Your task to perform on an android device: clear all cookies in the chrome app Image 0: 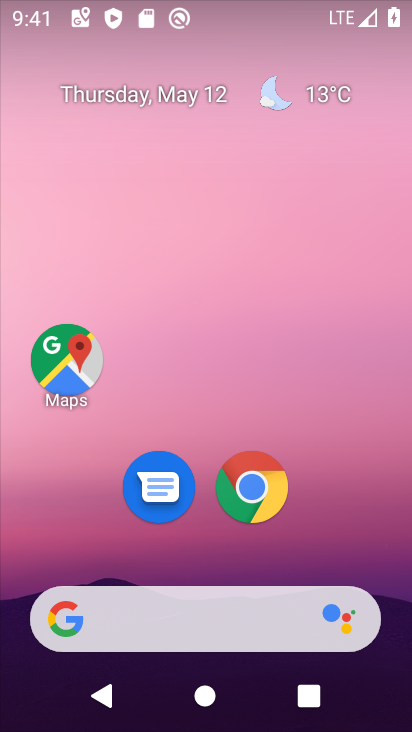
Step 0: click (263, 491)
Your task to perform on an android device: clear all cookies in the chrome app Image 1: 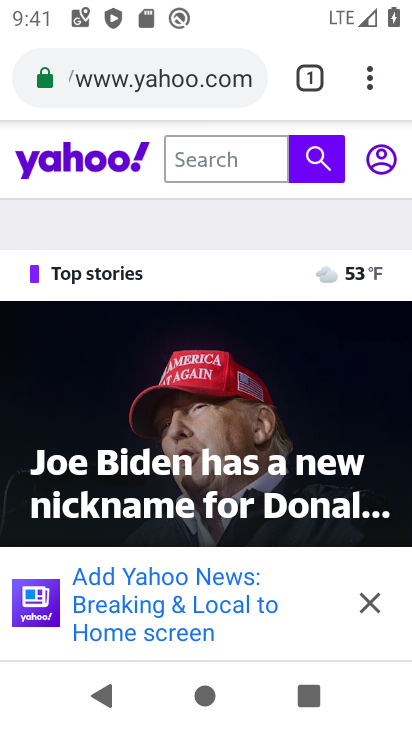
Step 1: click (372, 77)
Your task to perform on an android device: clear all cookies in the chrome app Image 2: 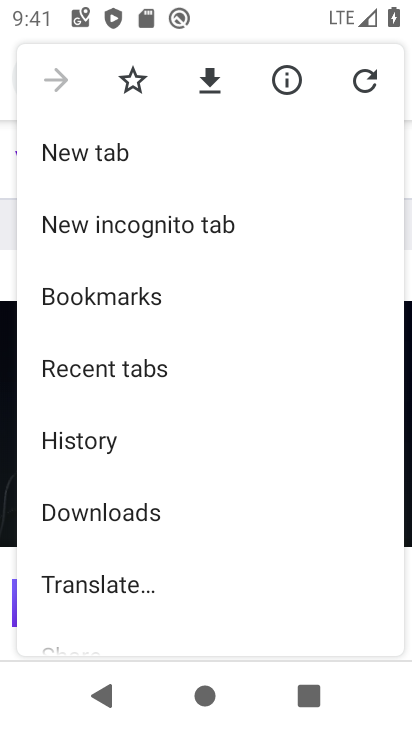
Step 2: drag from (216, 539) to (233, 85)
Your task to perform on an android device: clear all cookies in the chrome app Image 3: 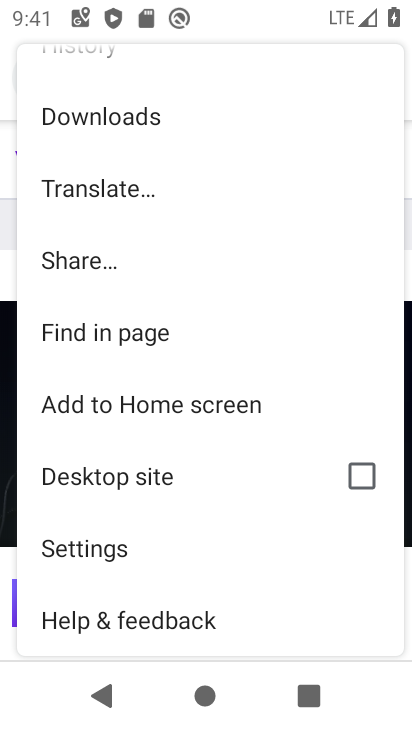
Step 3: click (106, 550)
Your task to perform on an android device: clear all cookies in the chrome app Image 4: 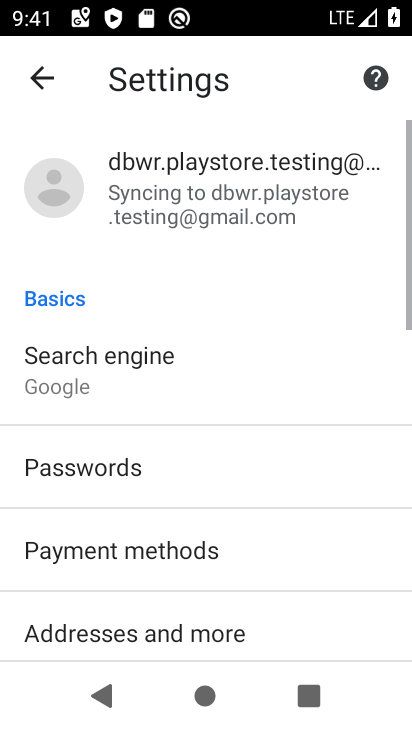
Step 4: drag from (170, 551) to (203, 43)
Your task to perform on an android device: clear all cookies in the chrome app Image 5: 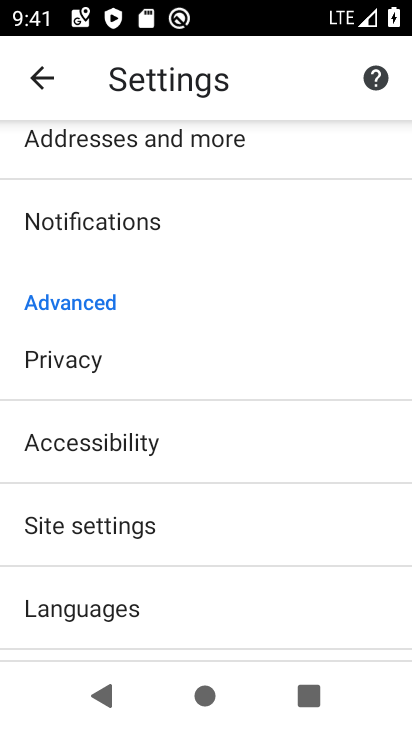
Step 5: drag from (172, 502) to (202, 178)
Your task to perform on an android device: clear all cookies in the chrome app Image 6: 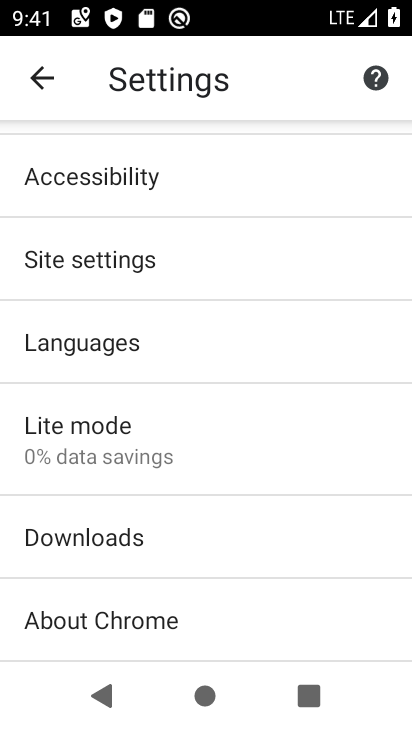
Step 6: drag from (237, 268) to (234, 581)
Your task to perform on an android device: clear all cookies in the chrome app Image 7: 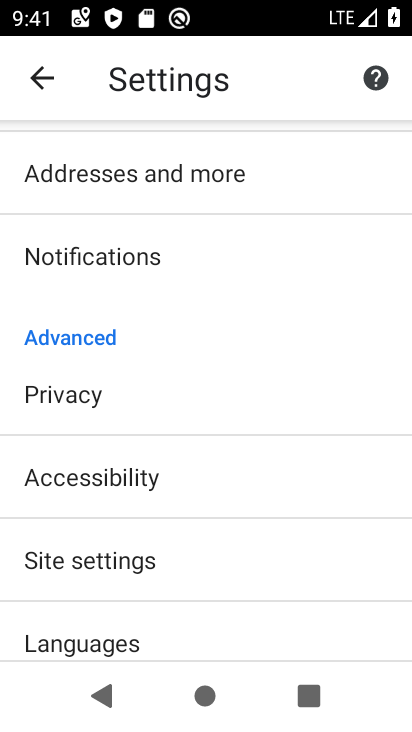
Step 7: click (78, 407)
Your task to perform on an android device: clear all cookies in the chrome app Image 8: 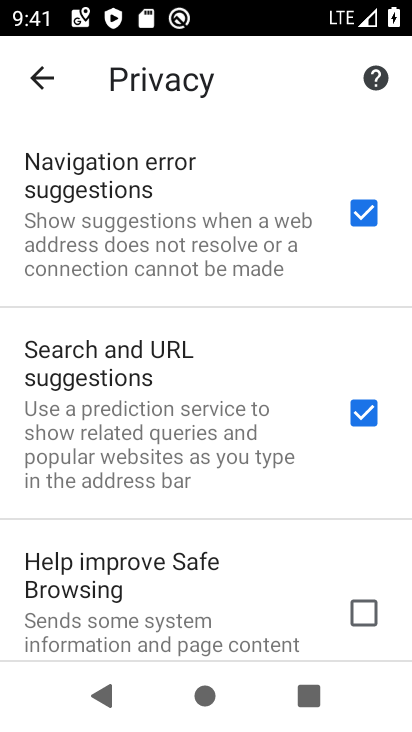
Step 8: drag from (147, 543) to (163, 74)
Your task to perform on an android device: clear all cookies in the chrome app Image 9: 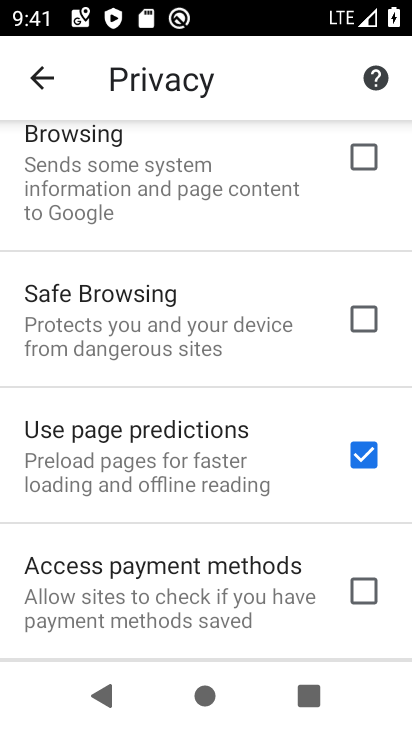
Step 9: drag from (150, 509) to (173, 69)
Your task to perform on an android device: clear all cookies in the chrome app Image 10: 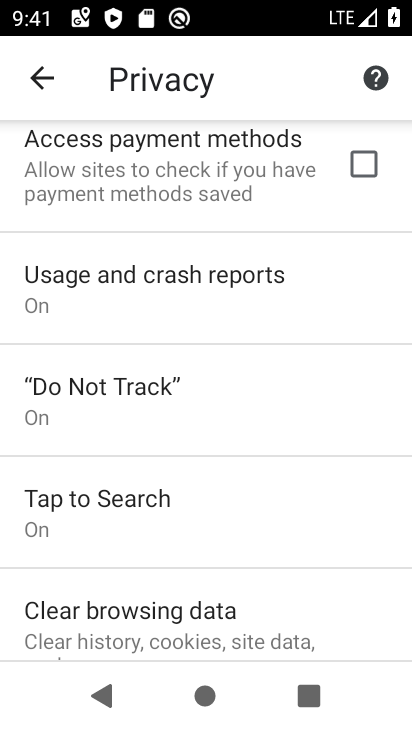
Step 10: drag from (134, 498) to (162, 162)
Your task to perform on an android device: clear all cookies in the chrome app Image 11: 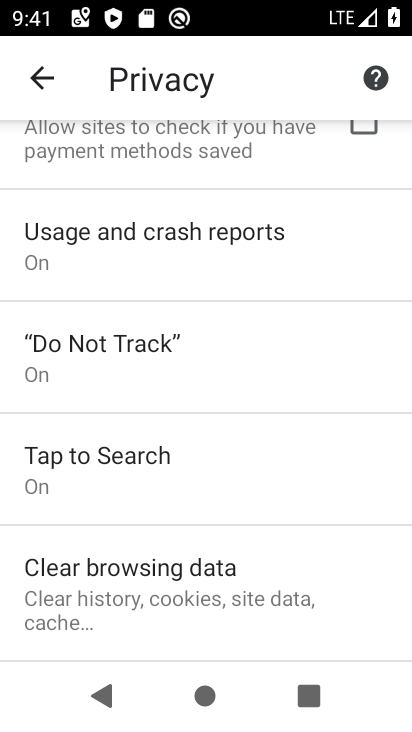
Step 11: click (147, 586)
Your task to perform on an android device: clear all cookies in the chrome app Image 12: 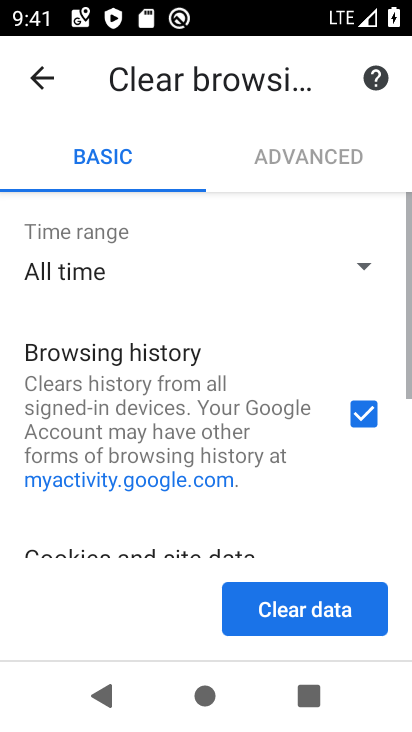
Step 12: click (351, 416)
Your task to perform on an android device: clear all cookies in the chrome app Image 13: 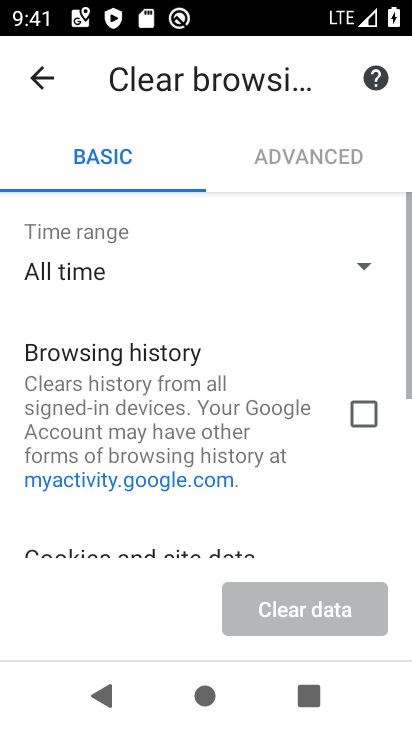
Step 13: drag from (191, 490) to (191, 141)
Your task to perform on an android device: clear all cookies in the chrome app Image 14: 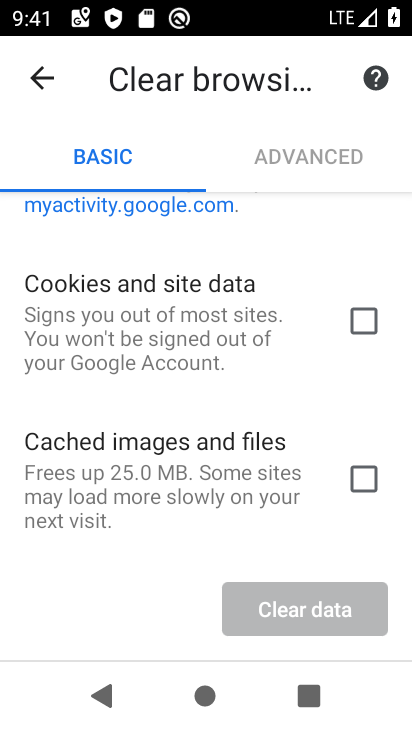
Step 14: click (362, 331)
Your task to perform on an android device: clear all cookies in the chrome app Image 15: 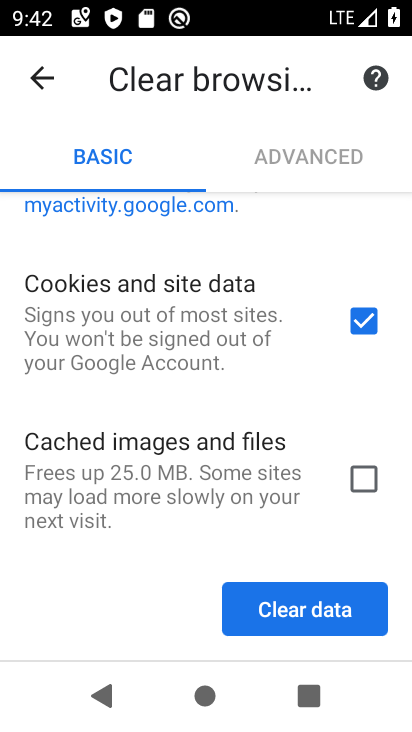
Step 15: click (314, 615)
Your task to perform on an android device: clear all cookies in the chrome app Image 16: 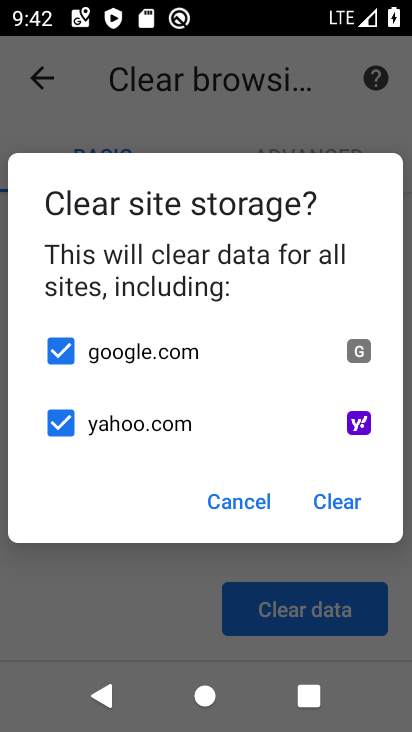
Step 16: click (356, 505)
Your task to perform on an android device: clear all cookies in the chrome app Image 17: 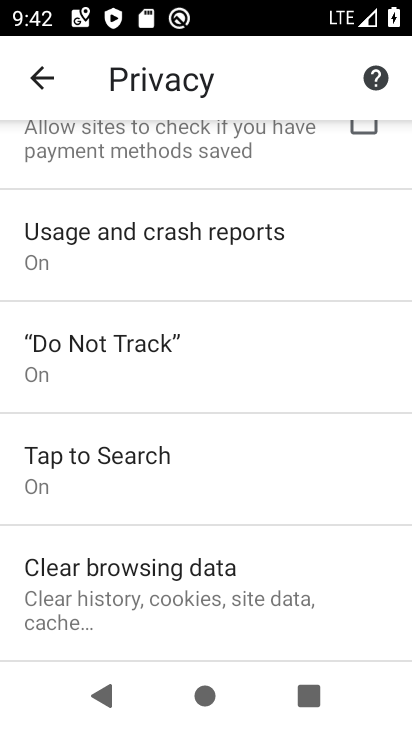
Step 17: task complete